Your task to perform on an android device: Open calendar and show me the fourth week of next month Image 0: 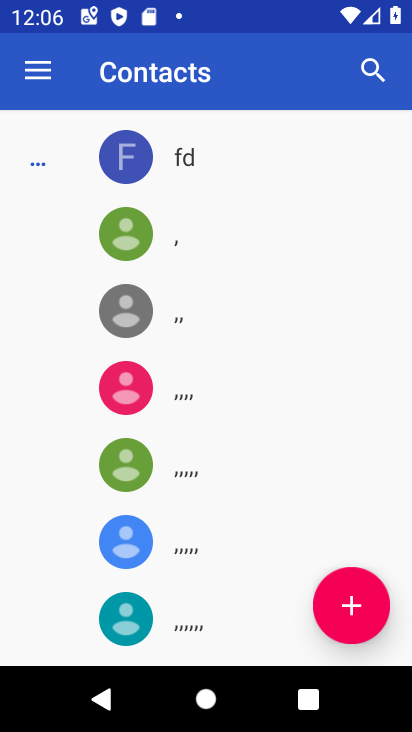
Step 0: press home button
Your task to perform on an android device: Open calendar and show me the fourth week of next month Image 1: 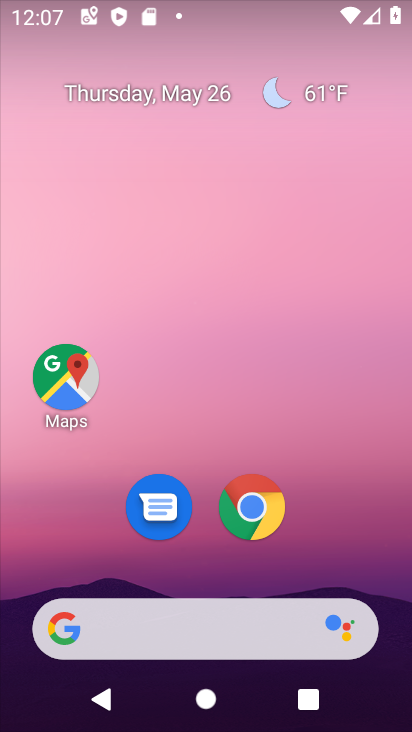
Step 1: drag from (393, 558) to (375, 264)
Your task to perform on an android device: Open calendar and show me the fourth week of next month Image 2: 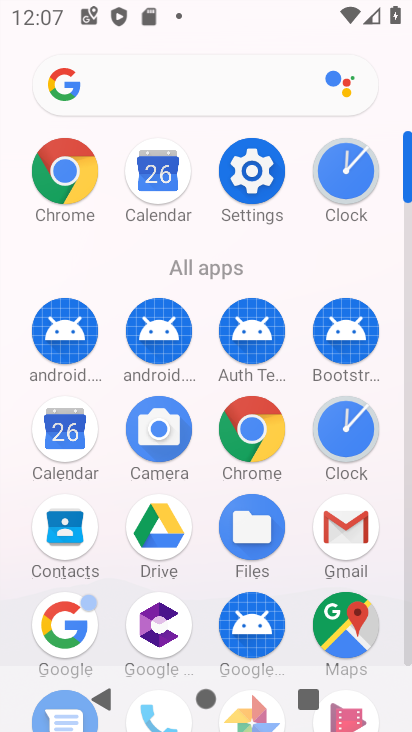
Step 2: click (77, 458)
Your task to perform on an android device: Open calendar and show me the fourth week of next month Image 3: 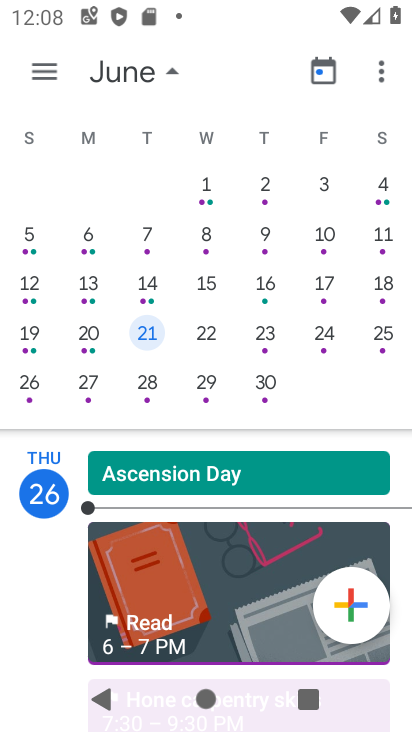
Step 3: task complete